Your task to perform on an android device: turn on data saver in the chrome app Image 0: 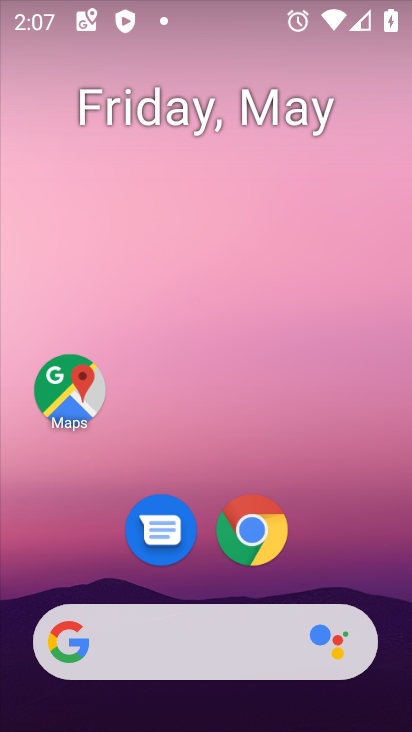
Step 0: click (252, 525)
Your task to perform on an android device: turn on data saver in the chrome app Image 1: 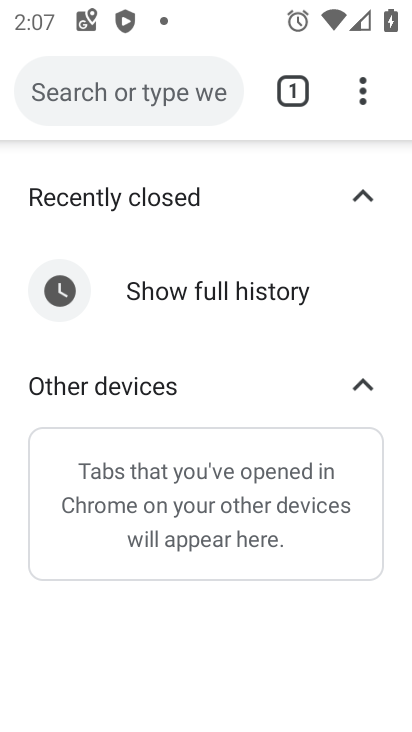
Step 1: click (357, 76)
Your task to perform on an android device: turn on data saver in the chrome app Image 2: 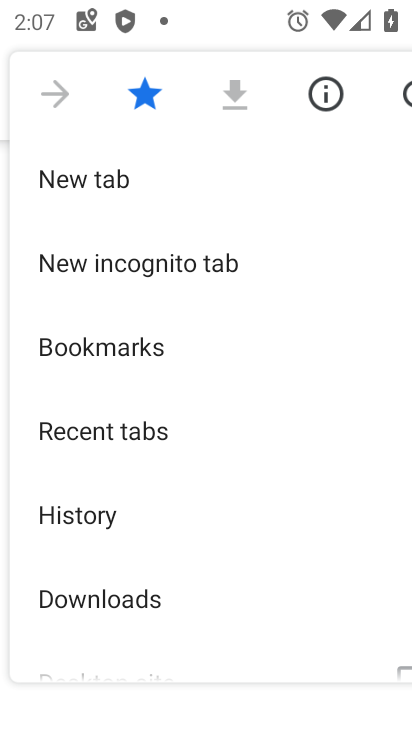
Step 2: drag from (148, 603) to (146, 47)
Your task to perform on an android device: turn on data saver in the chrome app Image 3: 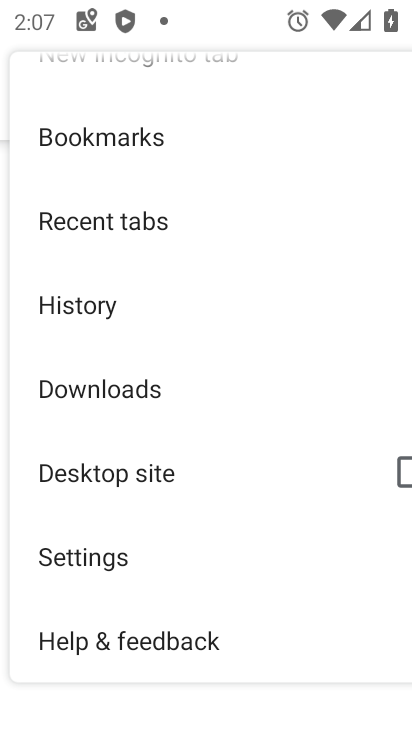
Step 3: click (61, 572)
Your task to perform on an android device: turn on data saver in the chrome app Image 4: 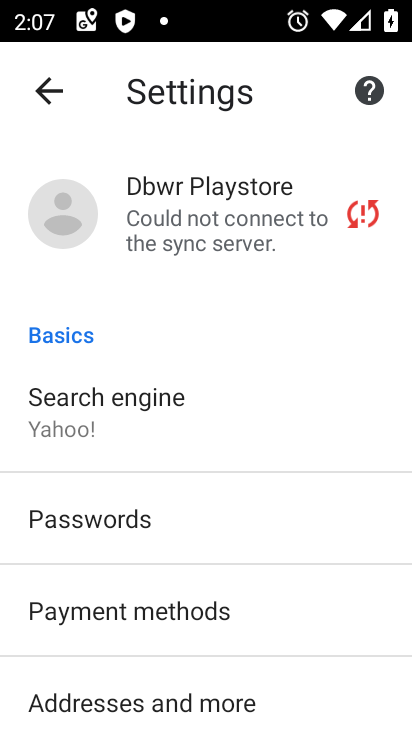
Step 4: drag from (103, 692) to (88, 264)
Your task to perform on an android device: turn on data saver in the chrome app Image 5: 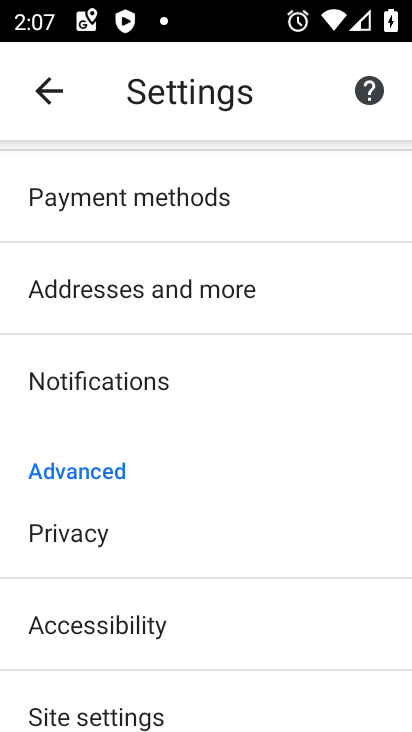
Step 5: drag from (182, 657) to (175, 186)
Your task to perform on an android device: turn on data saver in the chrome app Image 6: 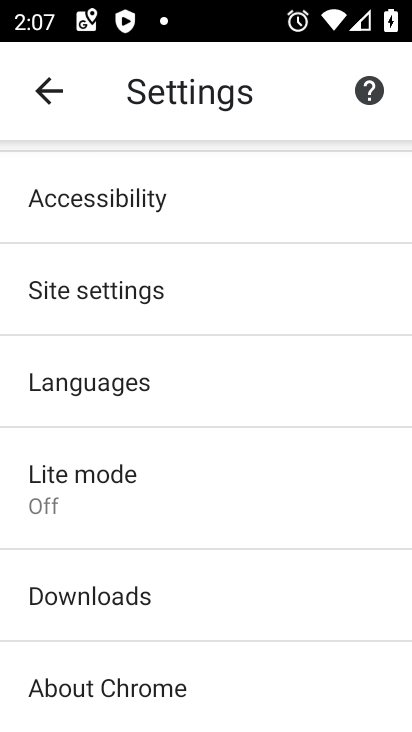
Step 6: click (106, 483)
Your task to perform on an android device: turn on data saver in the chrome app Image 7: 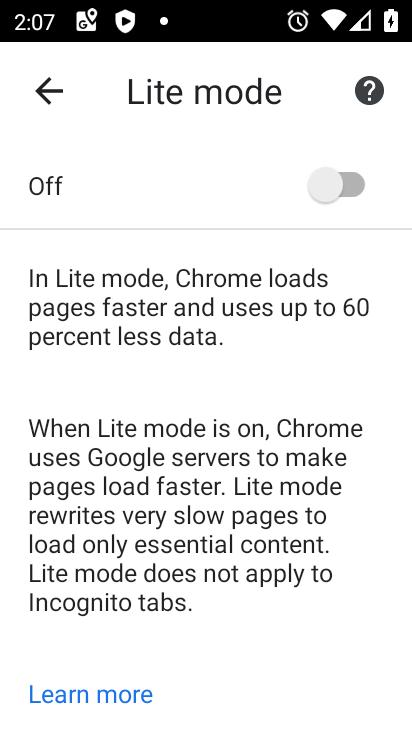
Step 7: click (356, 179)
Your task to perform on an android device: turn on data saver in the chrome app Image 8: 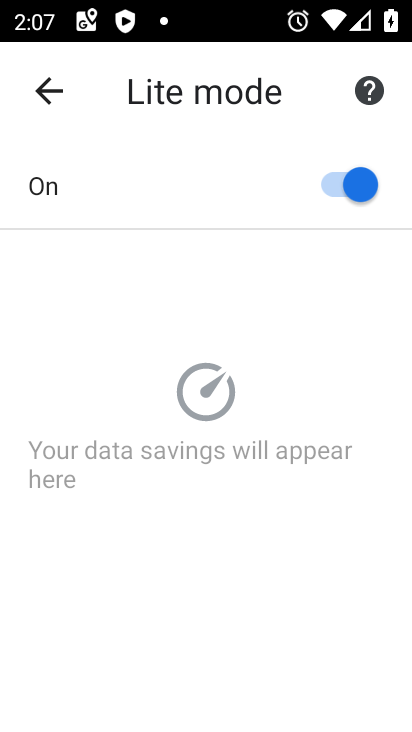
Step 8: task complete